Your task to perform on an android device: turn on priority inbox in the gmail app Image 0: 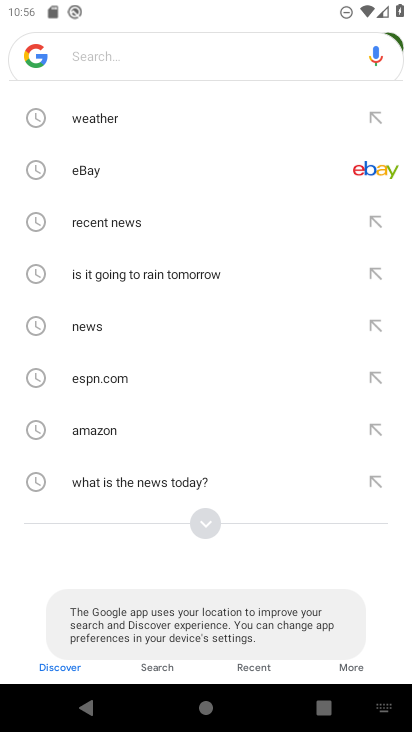
Step 0: press home button
Your task to perform on an android device: turn on priority inbox in the gmail app Image 1: 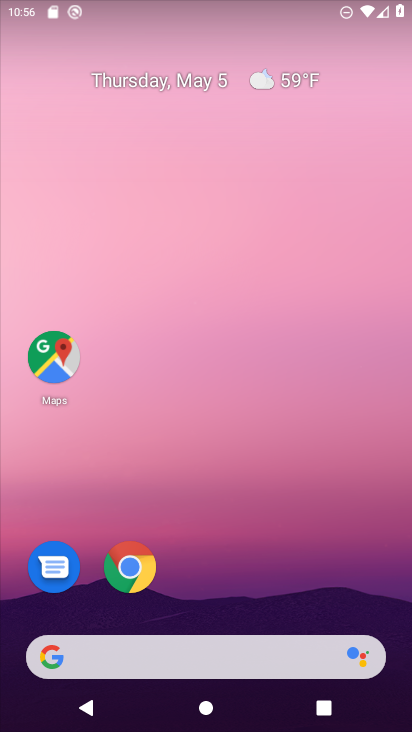
Step 1: drag from (247, 540) to (31, 105)
Your task to perform on an android device: turn on priority inbox in the gmail app Image 2: 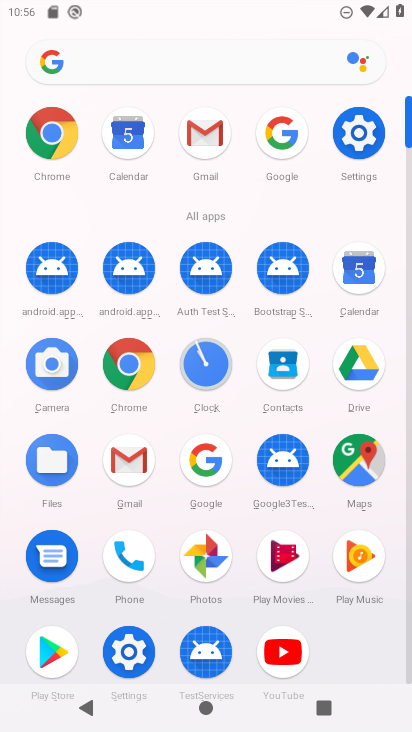
Step 2: click (213, 138)
Your task to perform on an android device: turn on priority inbox in the gmail app Image 3: 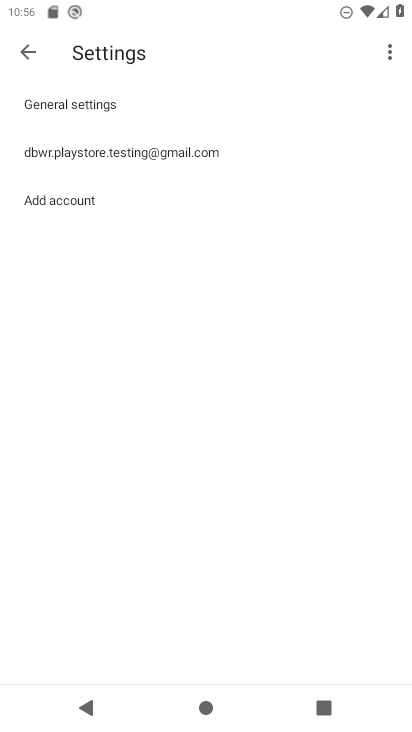
Step 3: click (68, 148)
Your task to perform on an android device: turn on priority inbox in the gmail app Image 4: 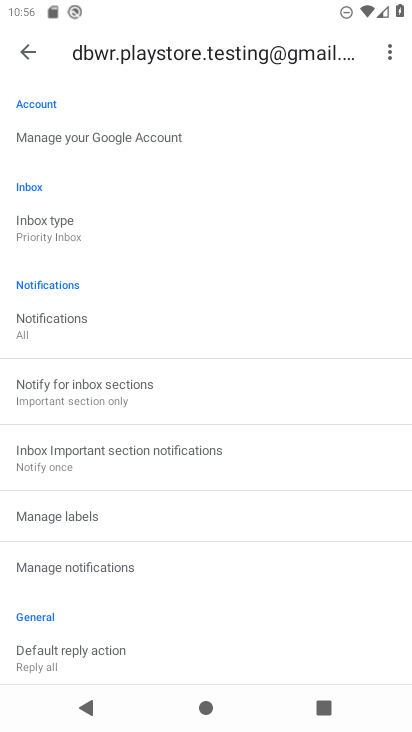
Step 4: click (76, 225)
Your task to perform on an android device: turn on priority inbox in the gmail app Image 5: 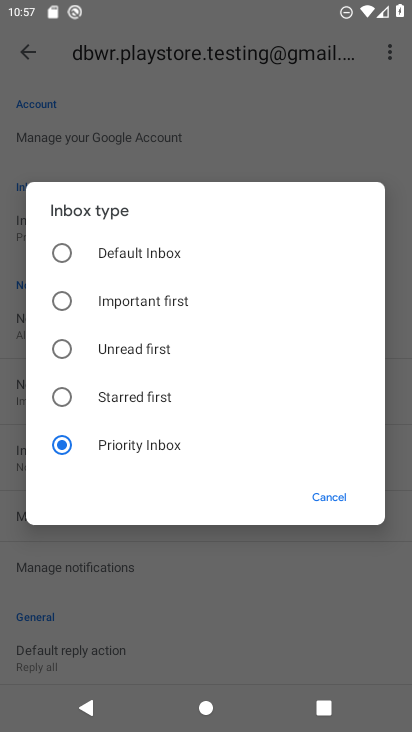
Step 5: task complete